Your task to perform on an android device: Open Google Chrome and open the bookmarks view Image 0: 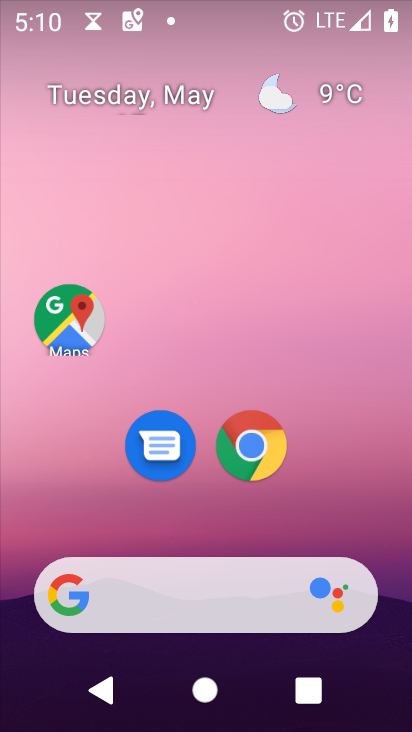
Step 0: drag from (231, 588) to (256, 31)
Your task to perform on an android device: Open Google Chrome and open the bookmarks view Image 1: 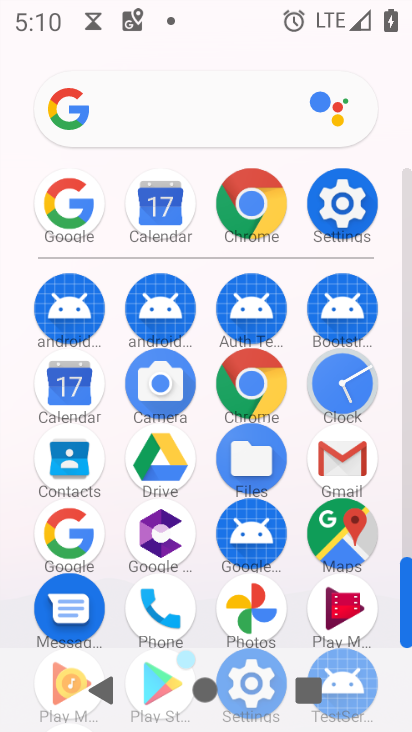
Step 1: click (243, 381)
Your task to perform on an android device: Open Google Chrome and open the bookmarks view Image 2: 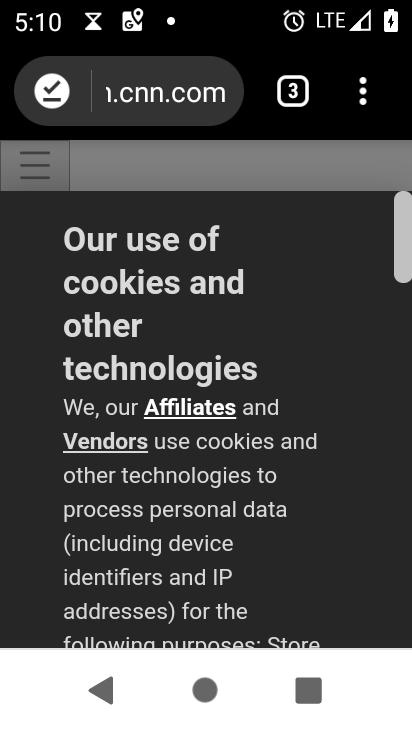
Step 2: task complete